Your task to perform on an android device: change the upload size in google photos Image 0: 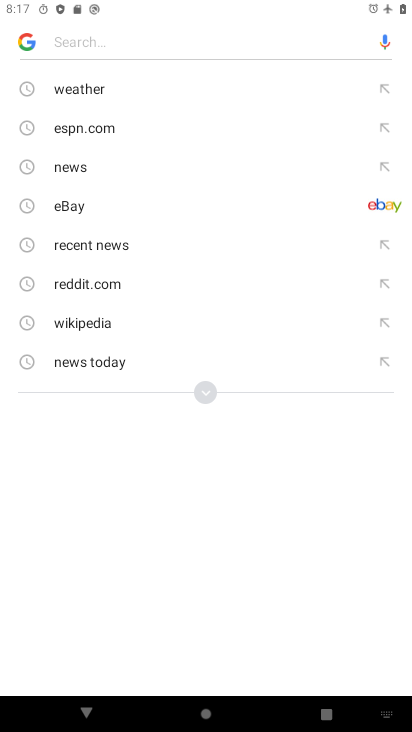
Step 0: press back button
Your task to perform on an android device: change the upload size in google photos Image 1: 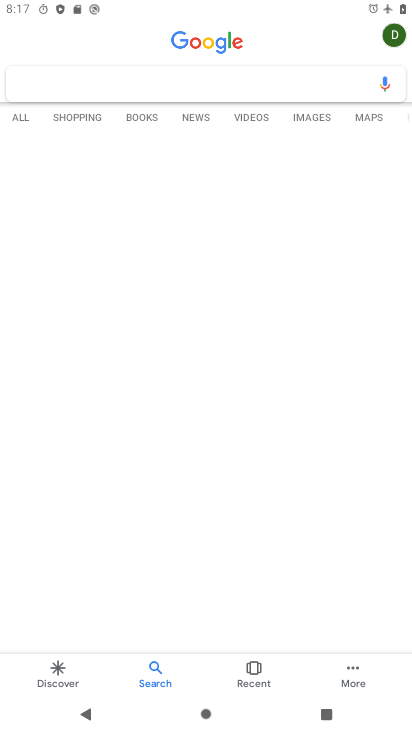
Step 1: press back button
Your task to perform on an android device: change the upload size in google photos Image 2: 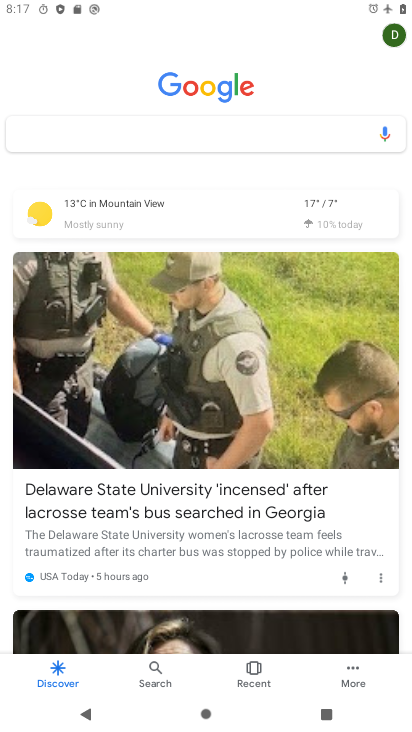
Step 2: press back button
Your task to perform on an android device: change the upload size in google photos Image 3: 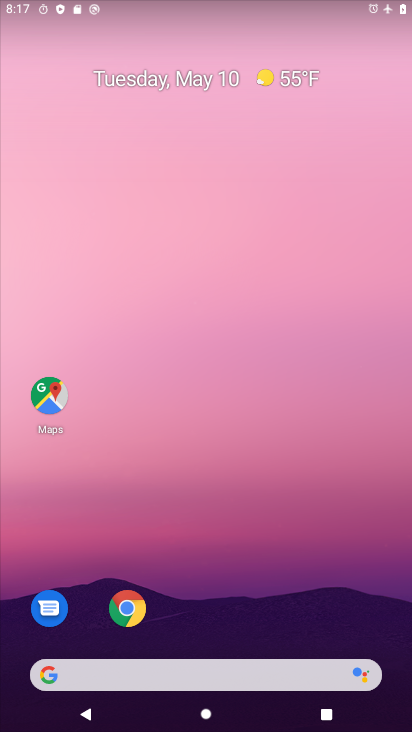
Step 3: drag from (231, 550) to (227, 146)
Your task to perform on an android device: change the upload size in google photos Image 4: 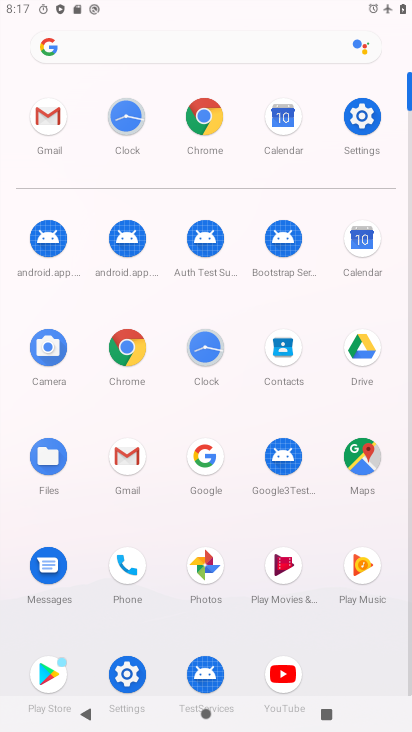
Step 4: click (204, 567)
Your task to perform on an android device: change the upload size in google photos Image 5: 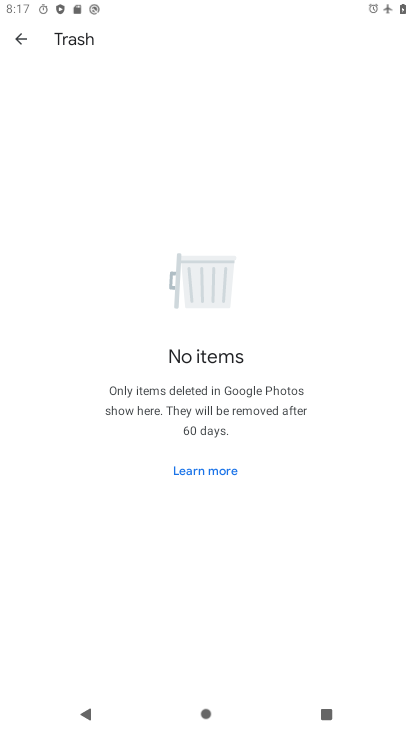
Step 5: press back button
Your task to perform on an android device: change the upload size in google photos Image 6: 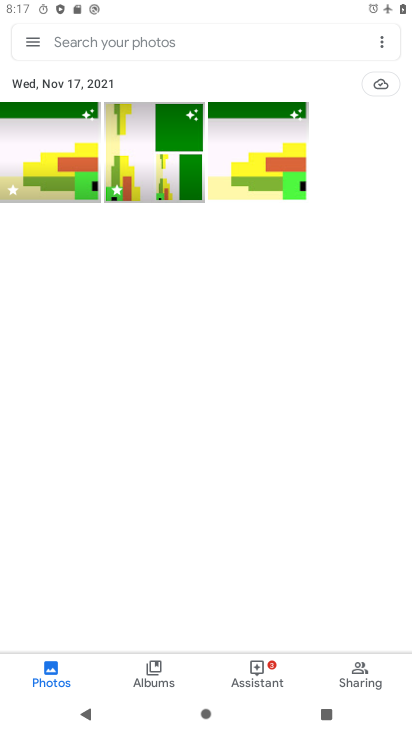
Step 6: click (33, 43)
Your task to perform on an android device: change the upload size in google photos Image 7: 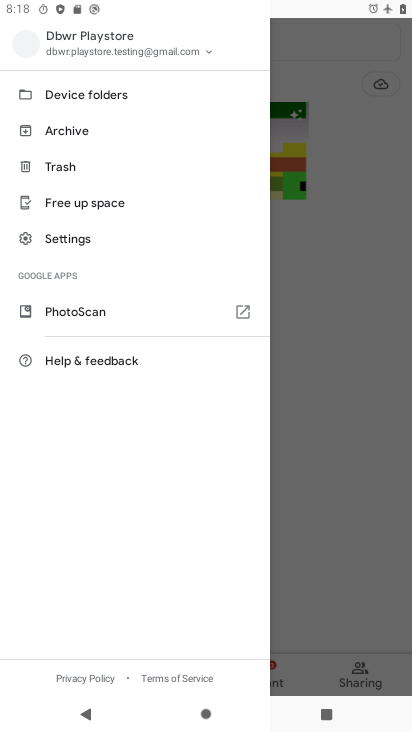
Step 7: click (68, 237)
Your task to perform on an android device: change the upload size in google photos Image 8: 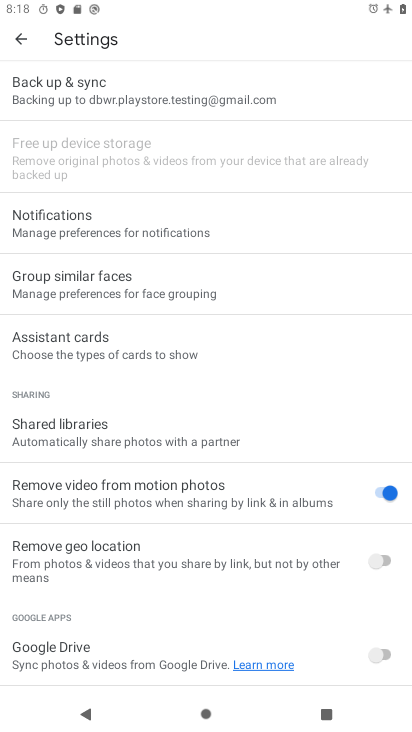
Step 8: click (122, 101)
Your task to perform on an android device: change the upload size in google photos Image 9: 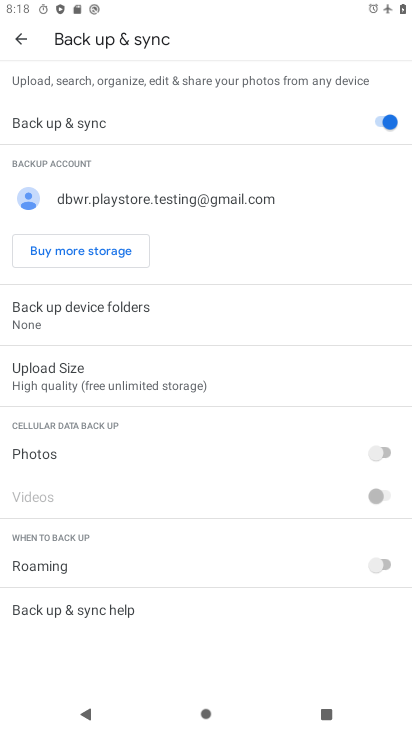
Step 9: click (93, 372)
Your task to perform on an android device: change the upload size in google photos Image 10: 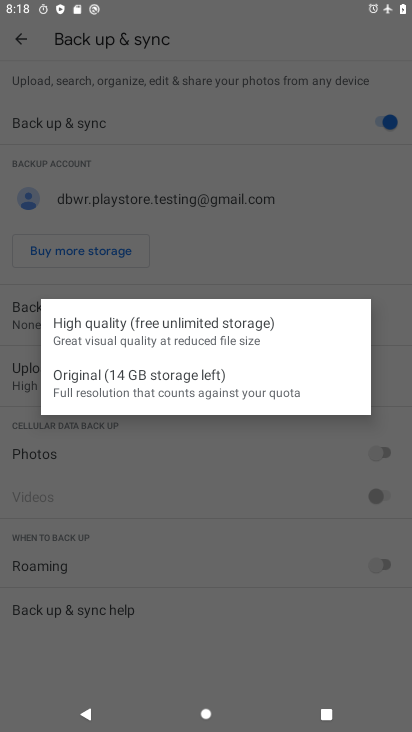
Step 10: click (100, 379)
Your task to perform on an android device: change the upload size in google photos Image 11: 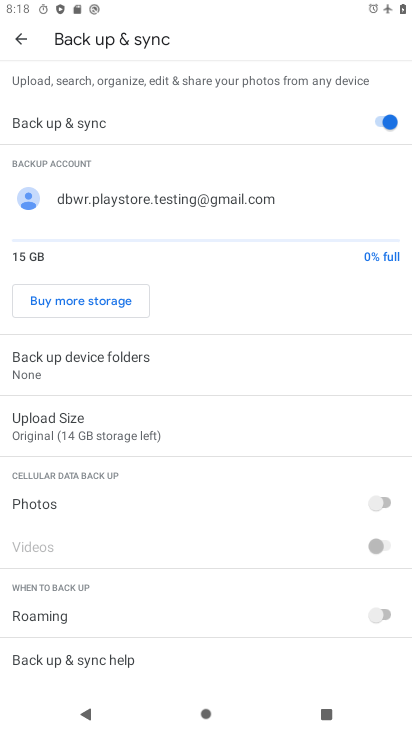
Step 11: task complete